Your task to perform on an android device: turn on showing notifications on the lock screen Image 0: 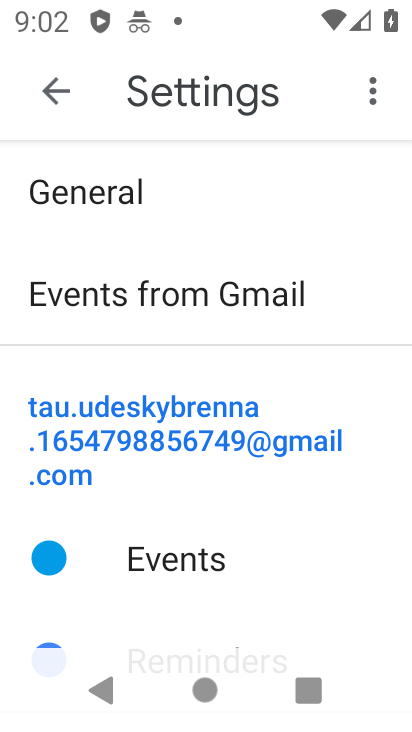
Step 0: press home button
Your task to perform on an android device: turn on showing notifications on the lock screen Image 1: 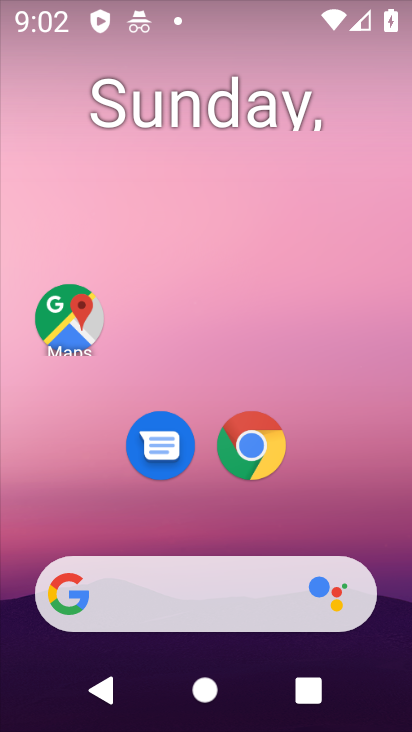
Step 1: drag from (241, 519) to (216, 11)
Your task to perform on an android device: turn on showing notifications on the lock screen Image 2: 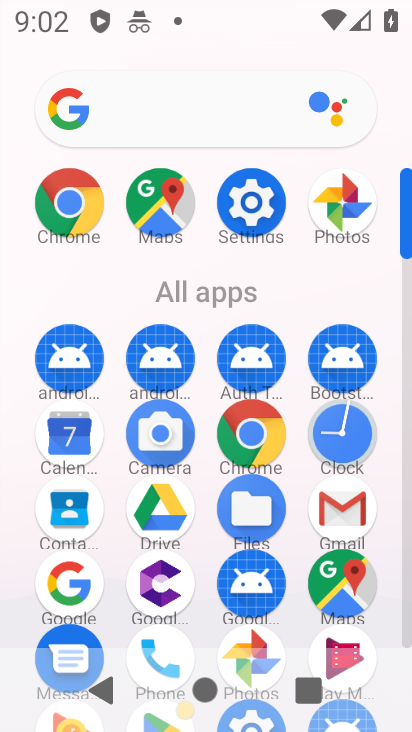
Step 2: click (238, 207)
Your task to perform on an android device: turn on showing notifications on the lock screen Image 3: 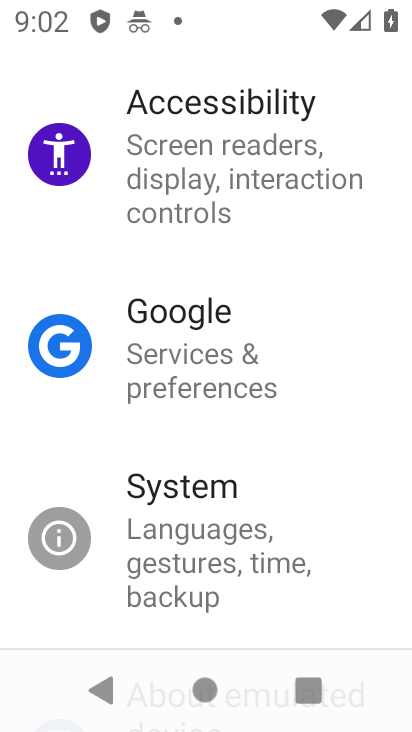
Step 3: drag from (184, 538) to (294, 189)
Your task to perform on an android device: turn on showing notifications on the lock screen Image 4: 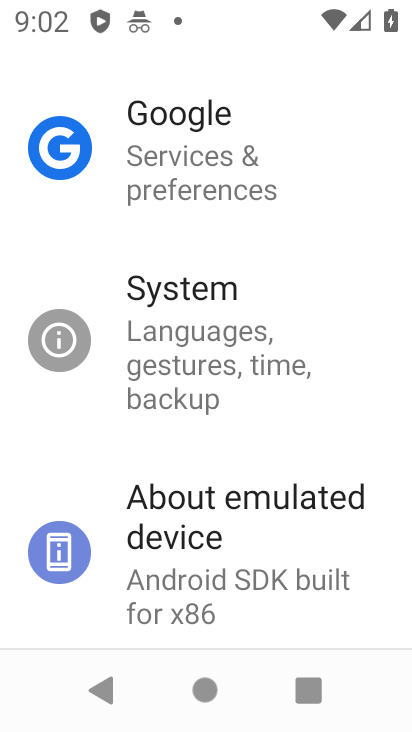
Step 4: drag from (286, 139) to (380, 614)
Your task to perform on an android device: turn on showing notifications on the lock screen Image 5: 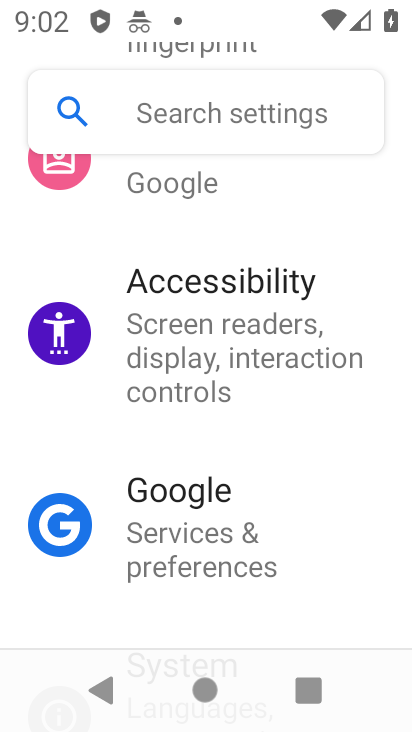
Step 5: drag from (313, 195) to (303, 586)
Your task to perform on an android device: turn on showing notifications on the lock screen Image 6: 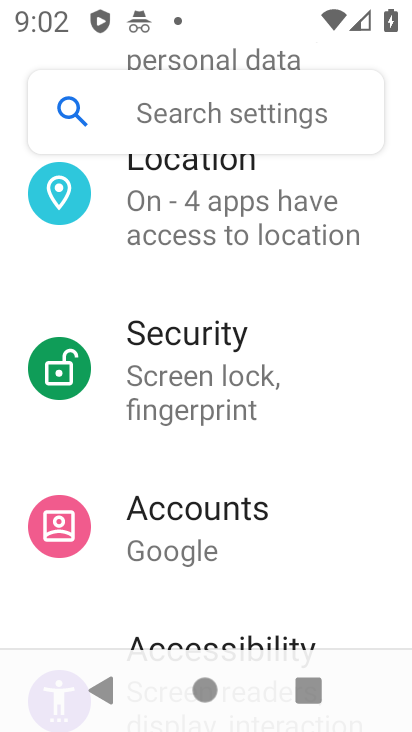
Step 6: drag from (343, 225) to (336, 553)
Your task to perform on an android device: turn on showing notifications on the lock screen Image 7: 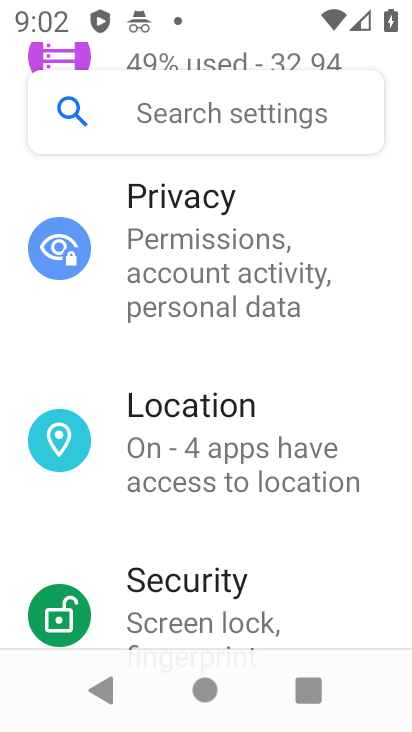
Step 7: drag from (312, 212) to (306, 637)
Your task to perform on an android device: turn on showing notifications on the lock screen Image 8: 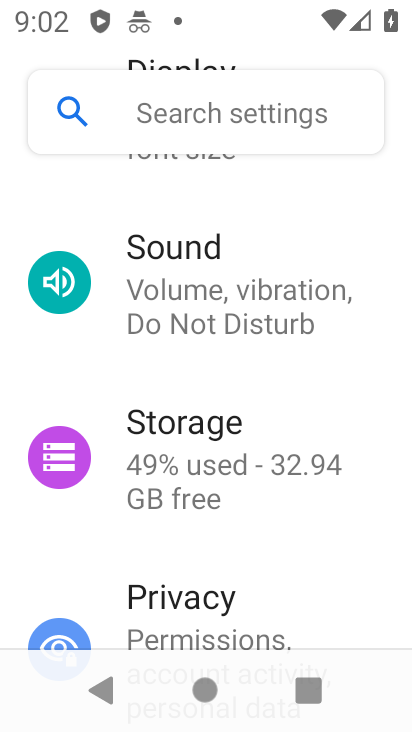
Step 8: drag from (308, 219) to (296, 627)
Your task to perform on an android device: turn on showing notifications on the lock screen Image 9: 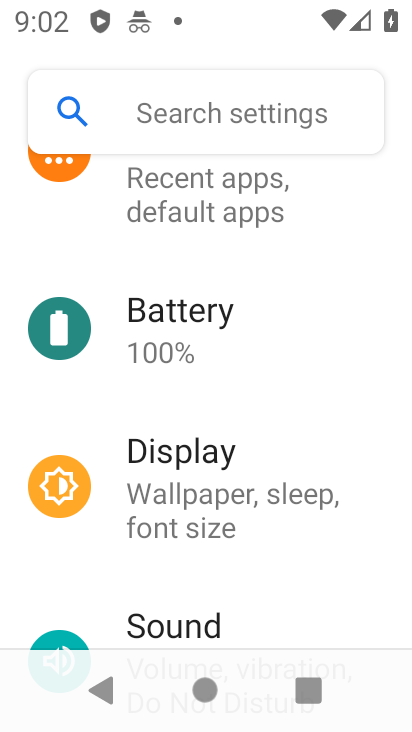
Step 9: drag from (297, 170) to (274, 615)
Your task to perform on an android device: turn on showing notifications on the lock screen Image 10: 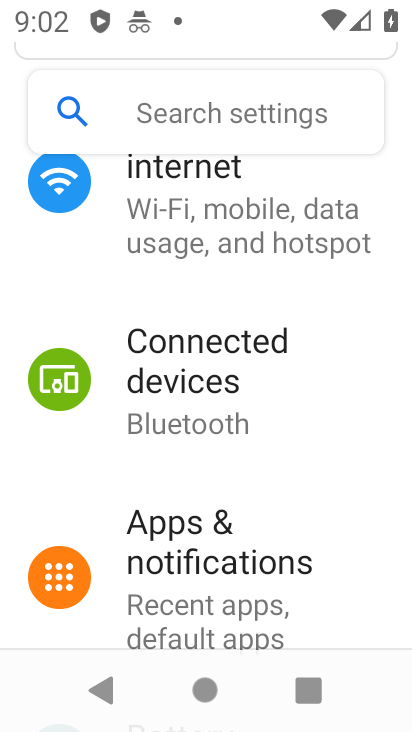
Step 10: drag from (274, 286) to (279, 242)
Your task to perform on an android device: turn on showing notifications on the lock screen Image 11: 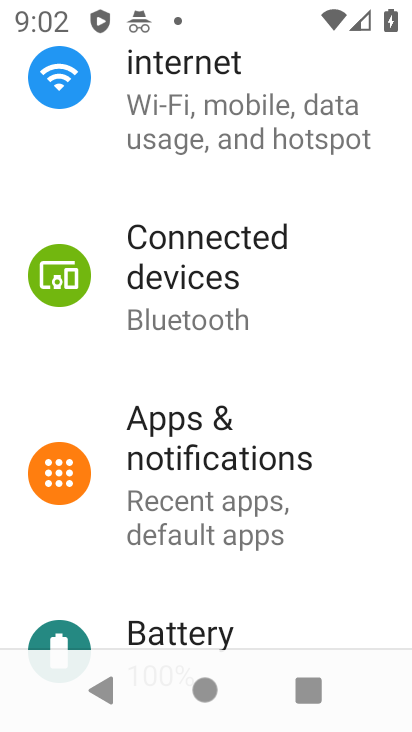
Step 11: click (175, 438)
Your task to perform on an android device: turn on showing notifications on the lock screen Image 12: 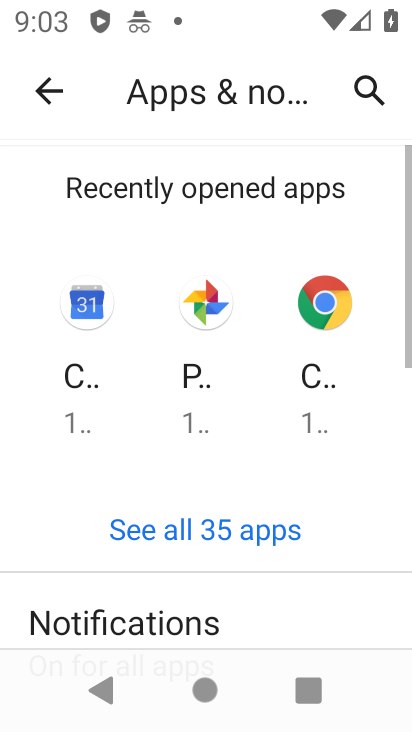
Step 12: drag from (351, 602) to (351, 244)
Your task to perform on an android device: turn on showing notifications on the lock screen Image 13: 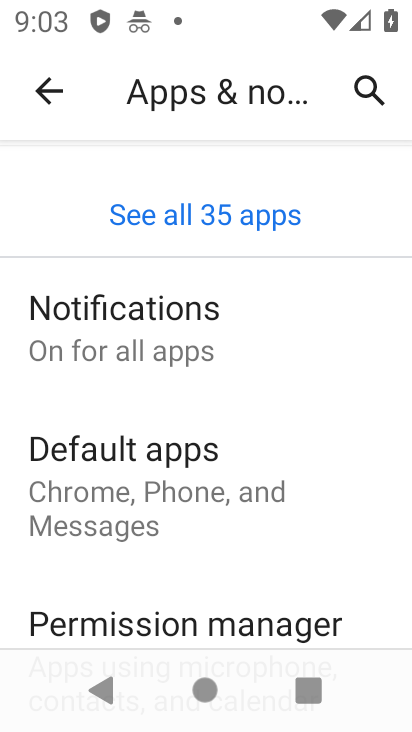
Step 13: click (104, 343)
Your task to perform on an android device: turn on showing notifications on the lock screen Image 14: 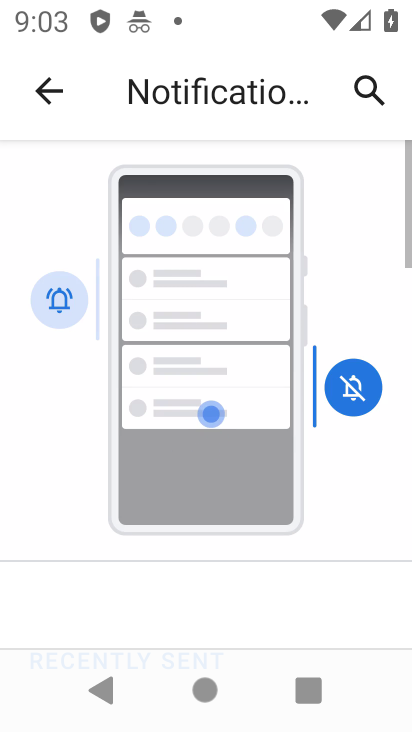
Step 14: drag from (329, 543) to (347, 170)
Your task to perform on an android device: turn on showing notifications on the lock screen Image 15: 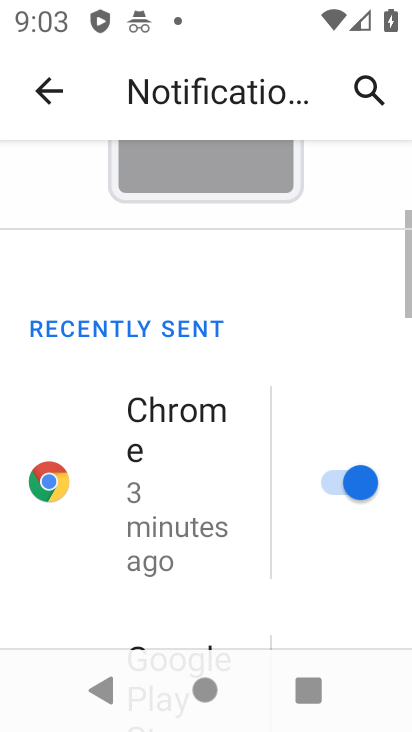
Step 15: drag from (293, 572) to (305, 98)
Your task to perform on an android device: turn on showing notifications on the lock screen Image 16: 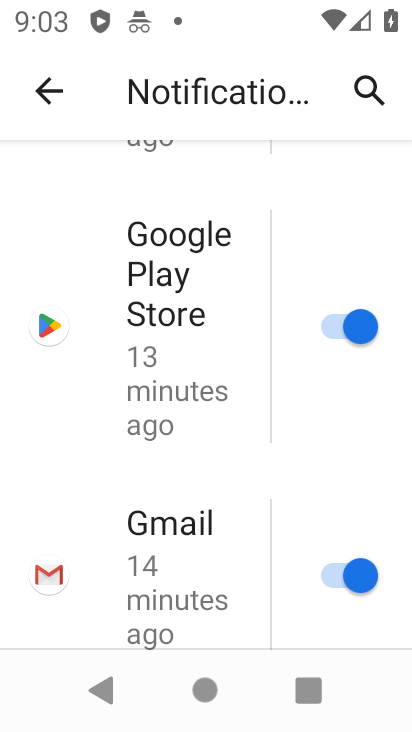
Step 16: drag from (305, 554) to (330, 228)
Your task to perform on an android device: turn on showing notifications on the lock screen Image 17: 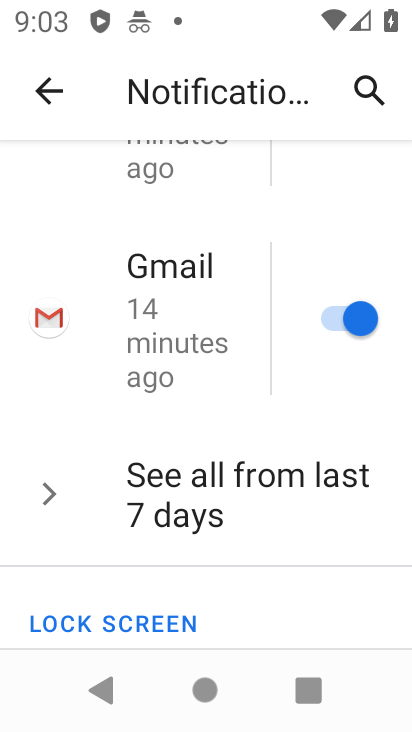
Step 17: drag from (322, 589) to (341, 151)
Your task to perform on an android device: turn on showing notifications on the lock screen Image 18: 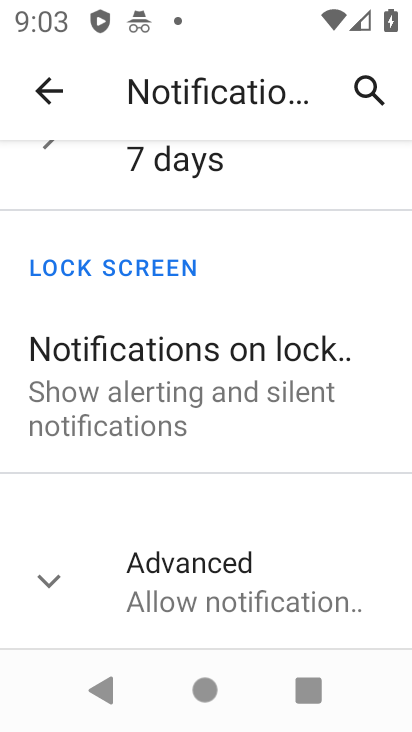
Step 18: click (196, 399)
Your task to perform on an android device: turn on showing notifications on the lock screen Image 19: 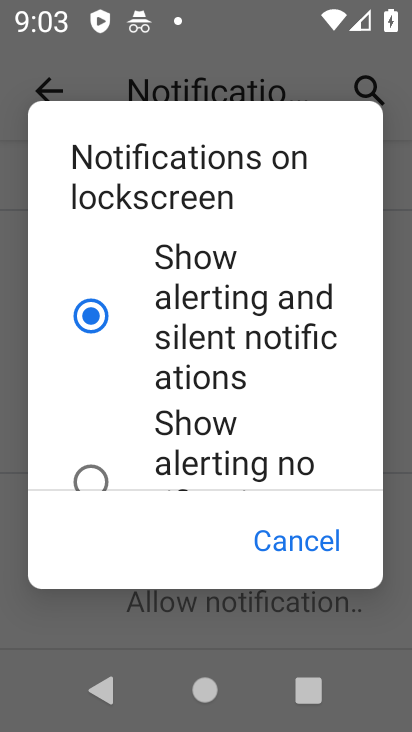
Step 19: task complete